Your task to perform on an android device: What's on my calendar today? Image 0: 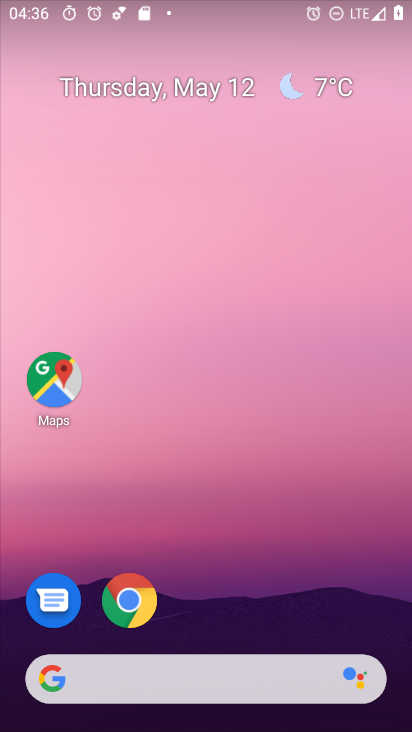
Step 0: drag from (198, 725) to (210, 208)
Your task to perform on an android device: What's on my calendar today? Image 1: 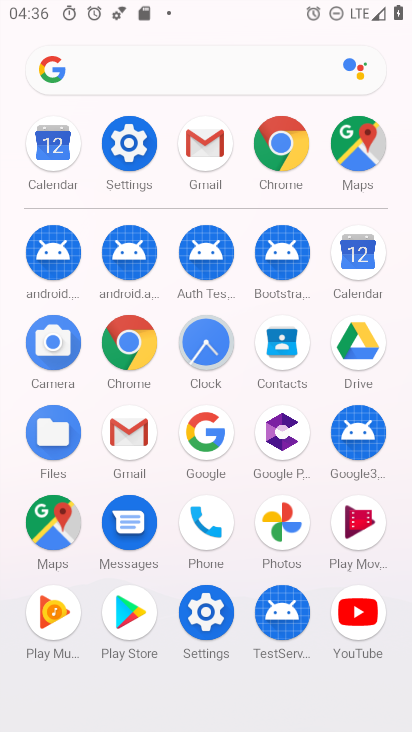
Step 1: click (43, 153)
Your task to perform on an android device: What's on my calendar today? Image 2: 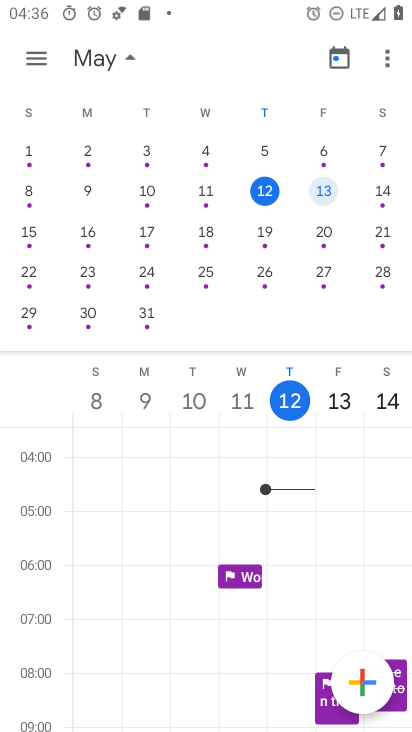
Step 2: click (263, 189)
Your task to perform on an android device: What's on my calendar today? Image 3: 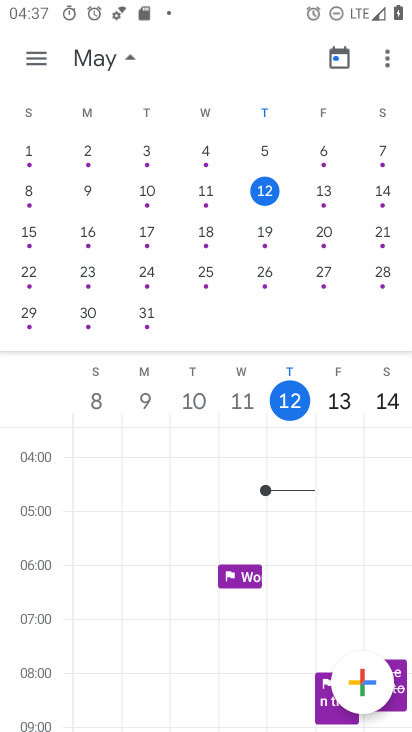
Step 3: task complete